Your task to perform on an android device: Open settings Image 0: 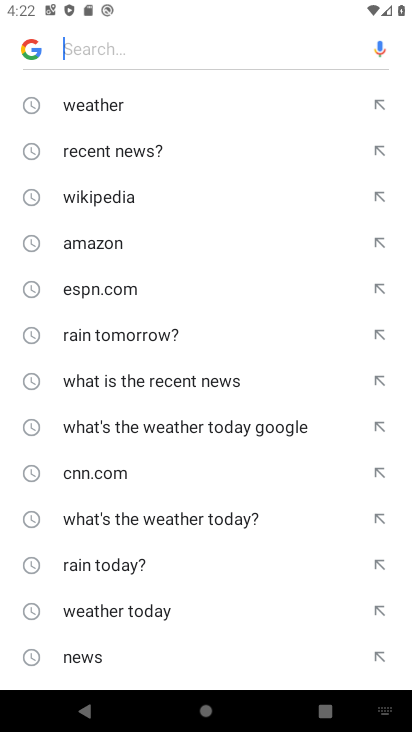
Step 0: press home button
Your task to perform on an android device: Open settings Image 1: 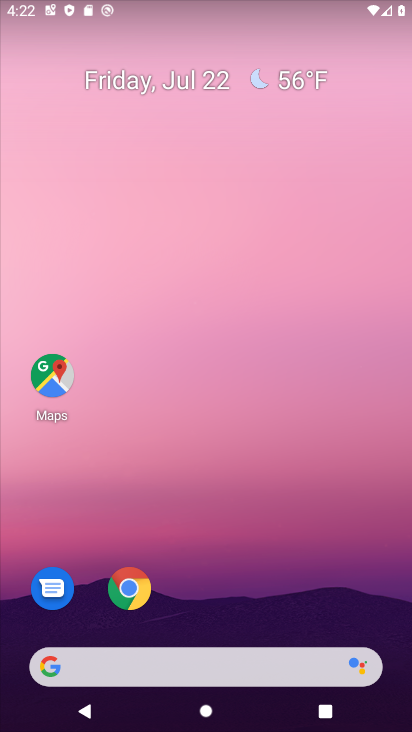
Step 1: drag from (222, 625) to (222, 153)
Your task to perform on an android device: Open settings Image 2: 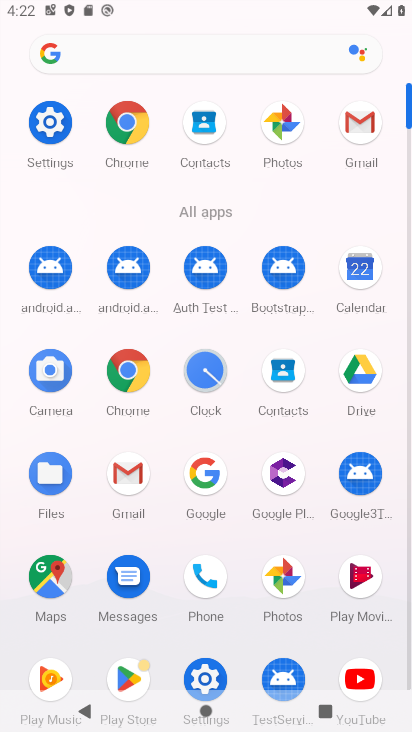
Step 2: click (61, 132)
Your task to perform on an android device: Open settings Image 3: 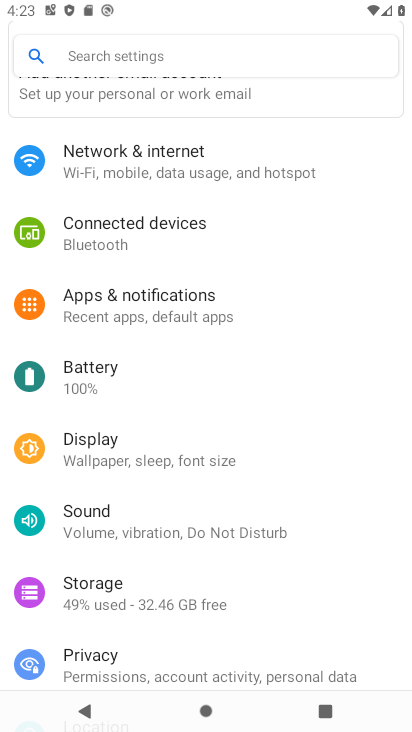
Step 3: task complete